Your task to perform on an android device: add a contact Image 0: 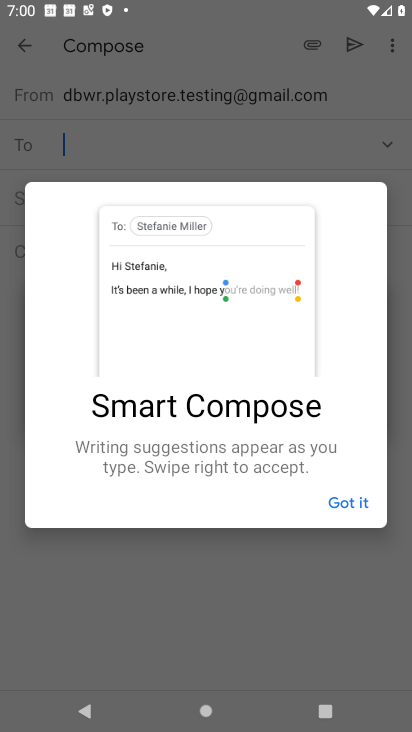
Step 0: press home button
Your task to perform on an android device: add a contact Image 1: 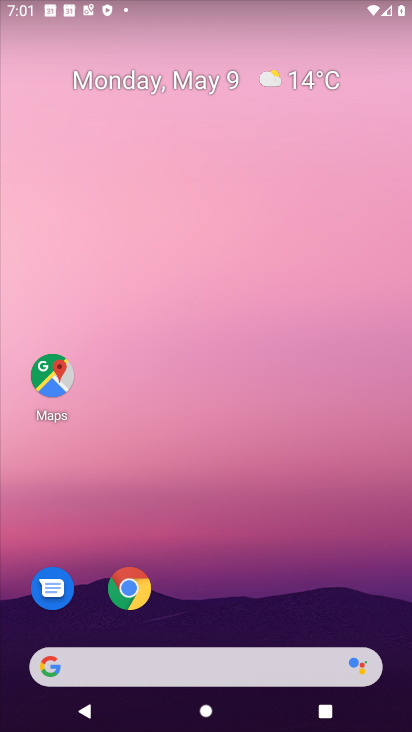
Step 1: drag from (297, 610) to (238, 44)
Your task to perform on an android device: add a contact Image 2: 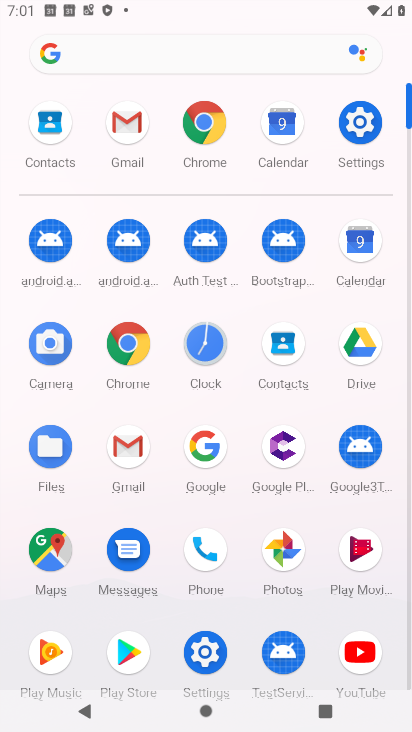
Step 2: click (289, 341)
Your task to perform on an android device: add a contact Image 3: 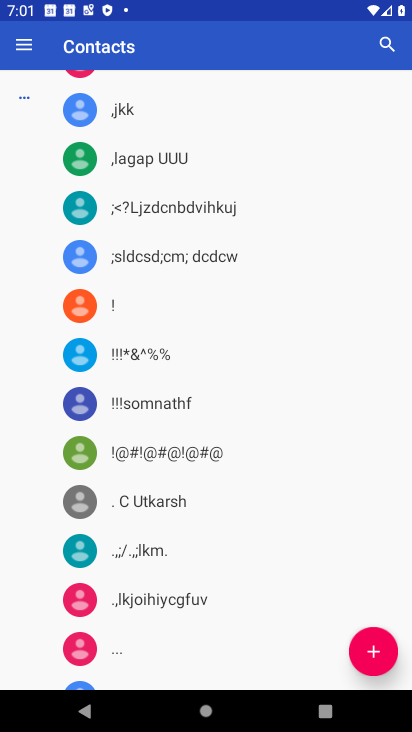
Step 3: click (377, 621)
Your task to perform on an android device: add a contact Image 4: 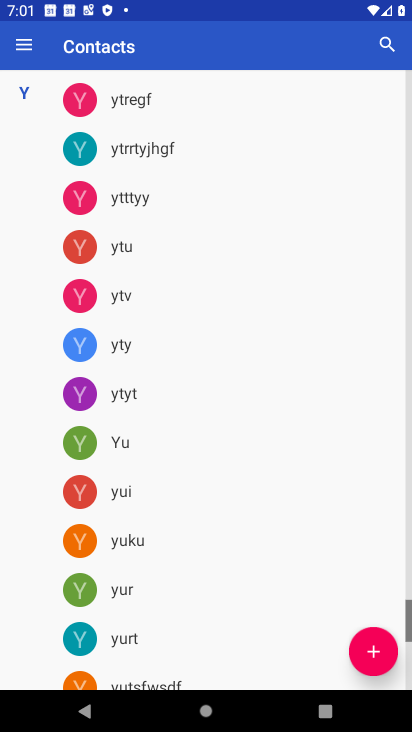
Step 4: click (371, 649)
Your task to perform on an android device: add a contact Image 5: 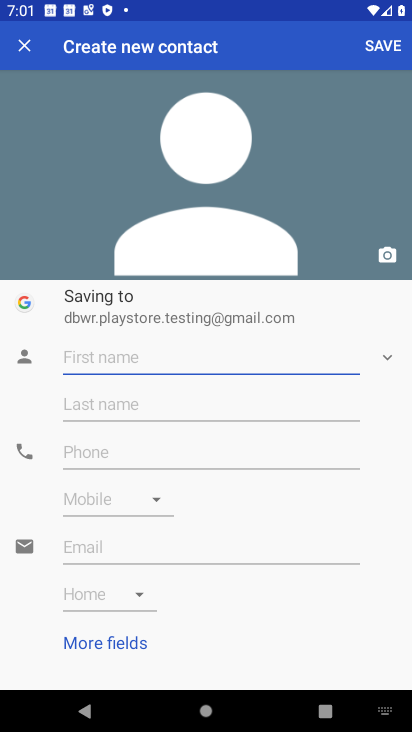
Step 5: type "vicky"
Your task to perform on an android device: add a contact Image 6: 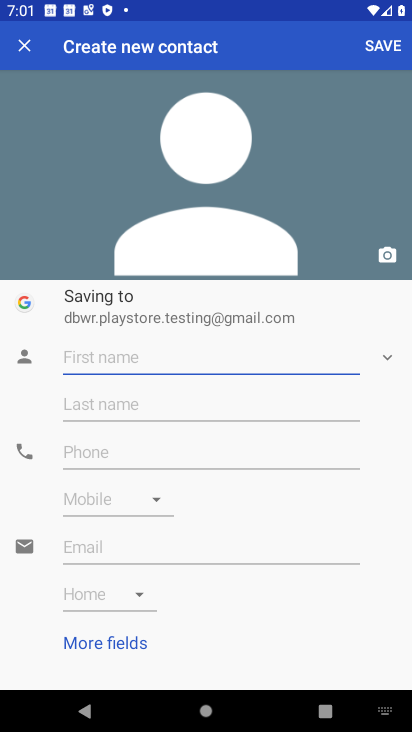
Step 6: click (375, 47)
Your task to perform on an android device: add a contact Image 7: 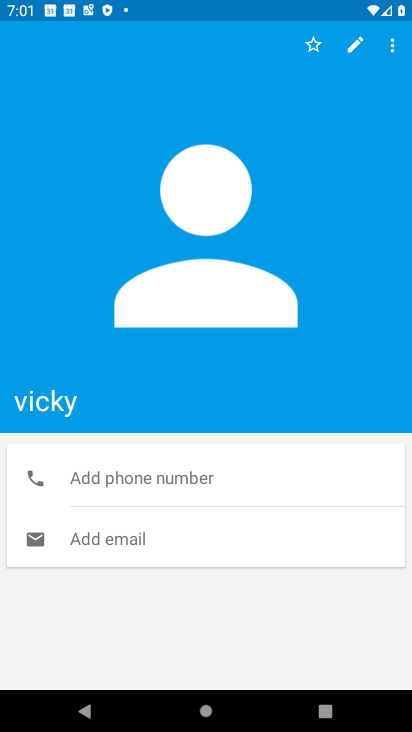
Step 7: task complete